Your task to perform on an android device: Show me recent news Image 0: 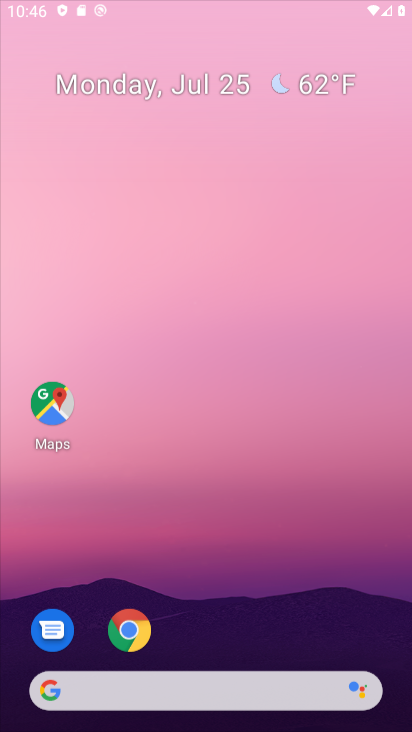
Step 0: click (231, 165)
Your task to perform on an android device: Show me recent news Image 1: 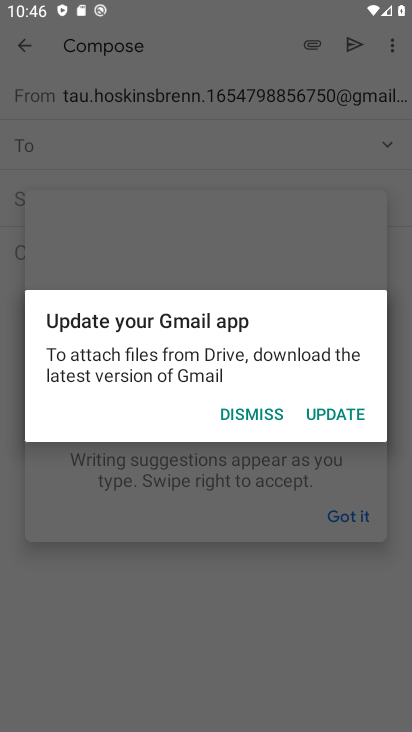
Step 1: press home button
Your task to perform on an android device: Show me recent news Image 2: 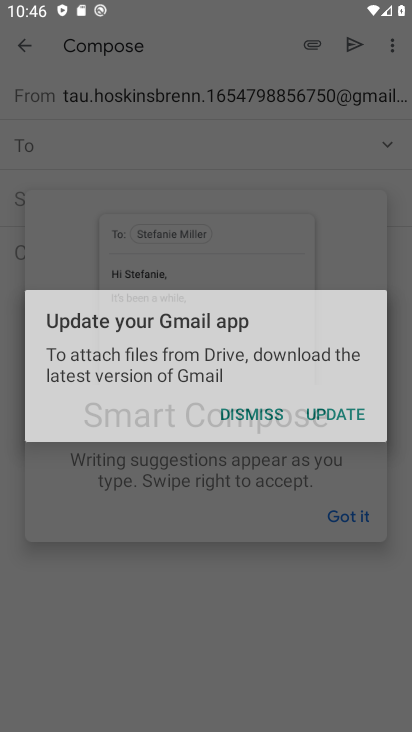
Step 2: drag from (347, 368) to (411, 31)
Your task to perform on an android device: Show me recent news Image 3: 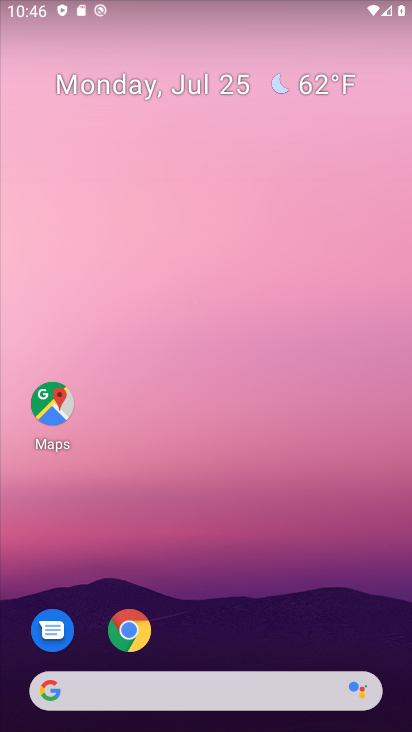
Step 3: drag from (190, 660) to (239, 139)
Your task to perform on an android device: Show me recent news Image 4: 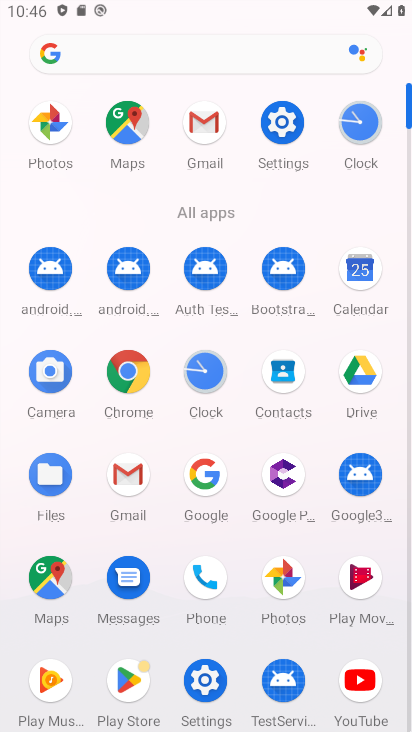
Step 4: click (156, 54)
Your task to perform on an android device: Show me recent news Image 5: 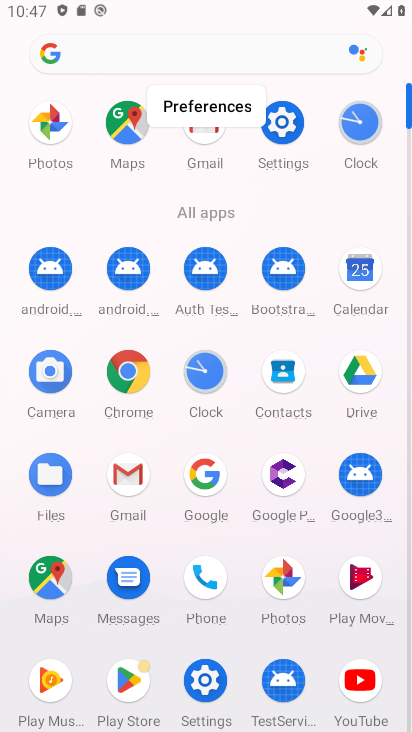
Step 5: click (158, 43)
Your task to perform on an android device: Show me recent news Image 6: 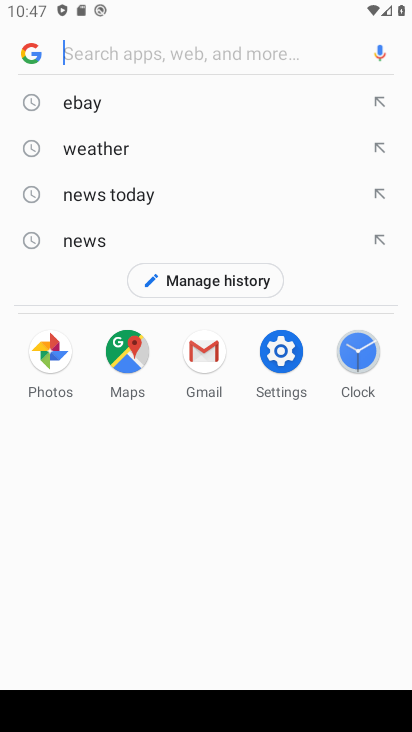
Step 6: drag from (95, 433) to (178, 206)
Your task to perform on an android device: Show me recent news Image 7: 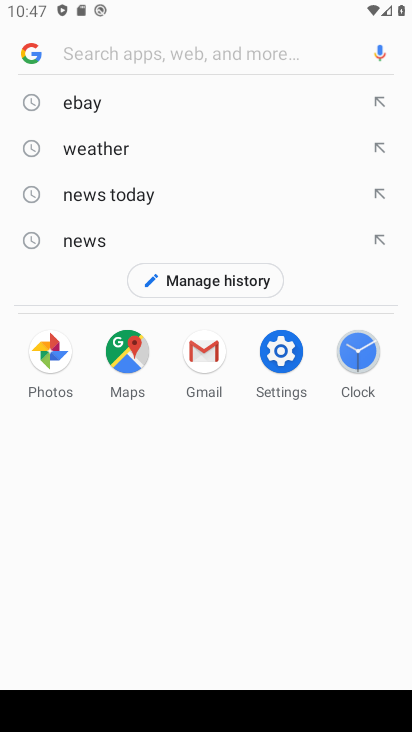
Step 7: type "recent news"
Your task to perform on an android device: Show me recent news Image 8: 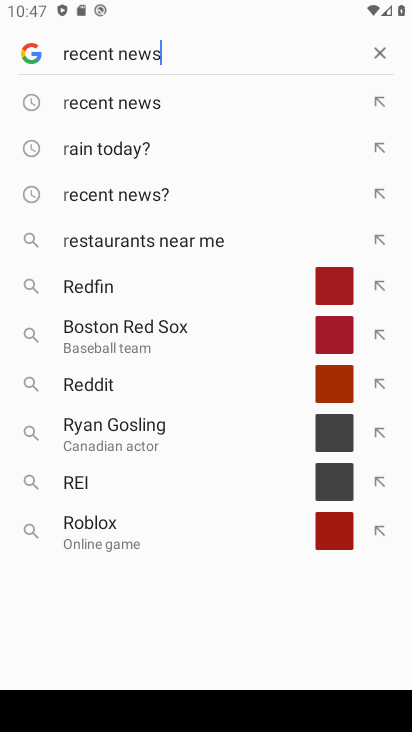
Step 8: type ""
Your task to perform on an android device: Show me recent news Image 9: 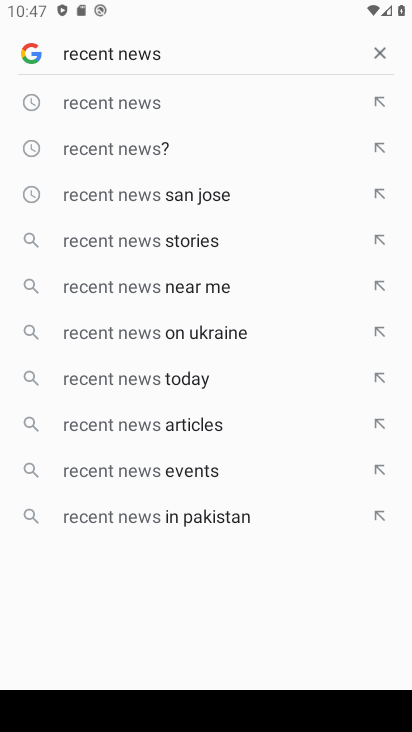
Step 9: click (101, 93)
Your task to perform on an android device: Show me recent news Image 10: 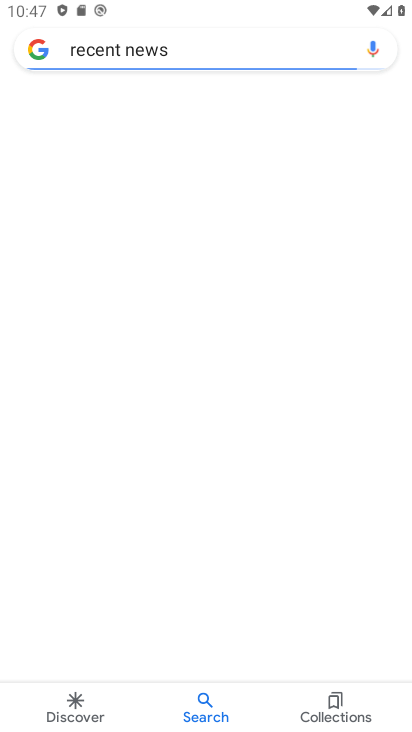
Step 10: task complete